Your task to perform on an android device: open sync settings in chrome Image 0: 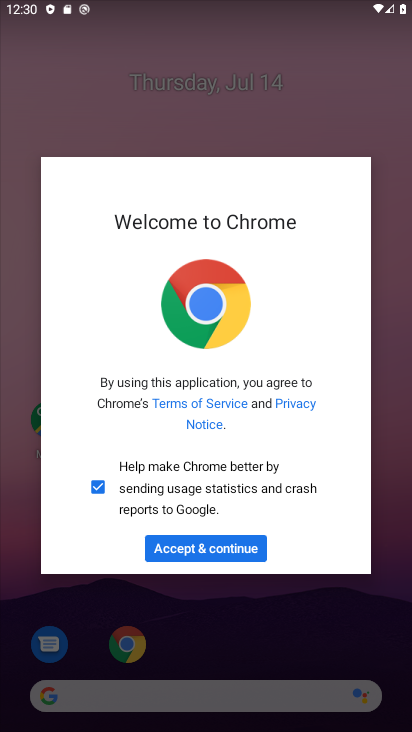
Step 0: click (236, 546)
Your task to perform on an android device: open sync settings in chrome Image 1: 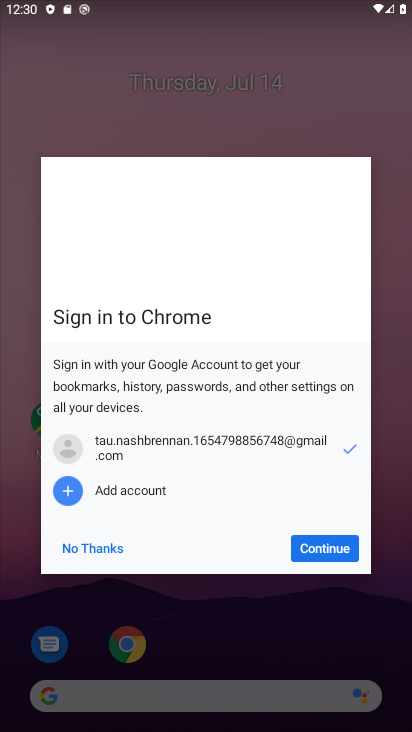
Step 1: click (332, 550)
Your task to perform on an android device: open sync settings in chrome Image 2: 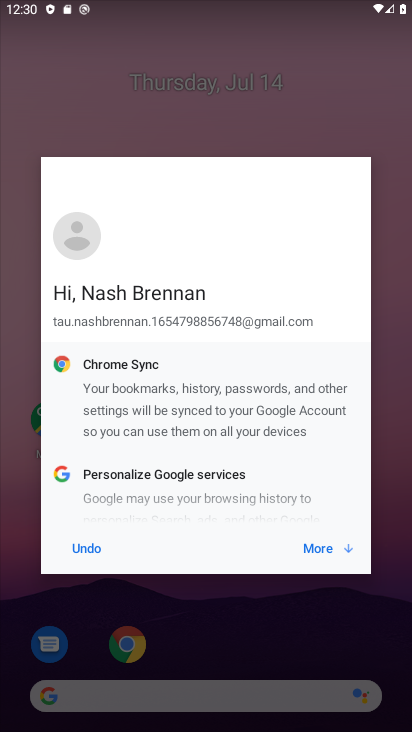
Step 2: click (332, 550)
Your task to perform on an android device: open sync settings in chrome Image 3: 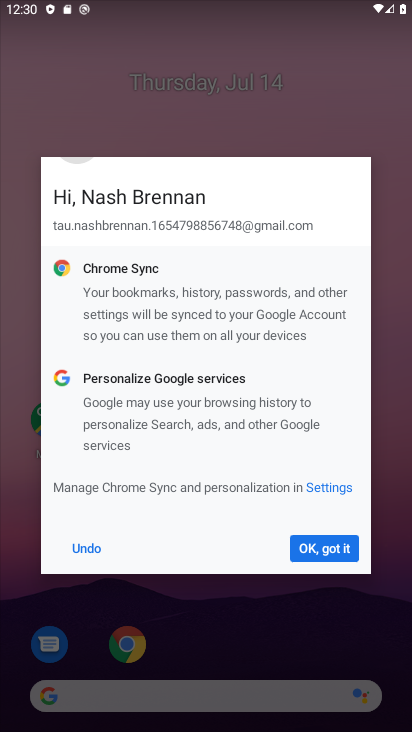
Step 3: click (332, 550)
Your task to perform on an android device: open sync settings in chrome Image 4: 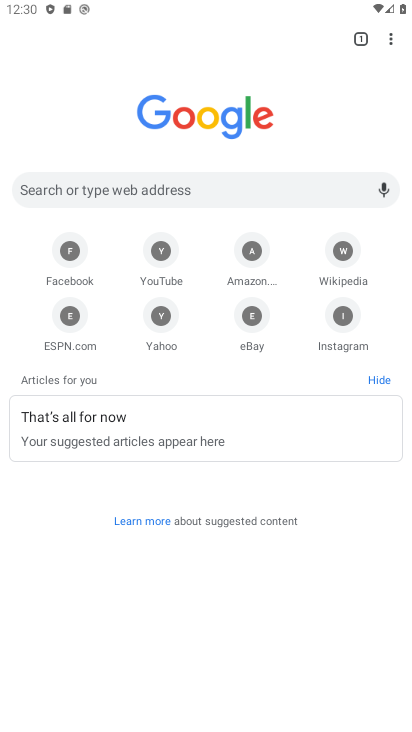
Step 4: drag from (392, 35) to (255, 329)
Your task to perform on an android device: open sync settings in chrome Image 5: 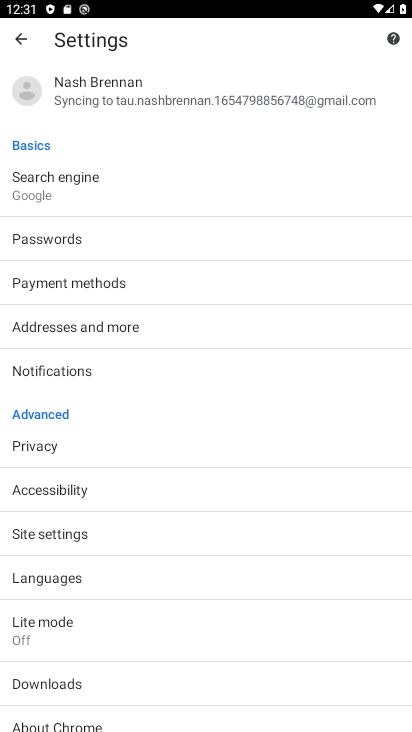
Step 5: click (117, 89)
Your task to perform on an android device: open sync settings in chrome Image 6: 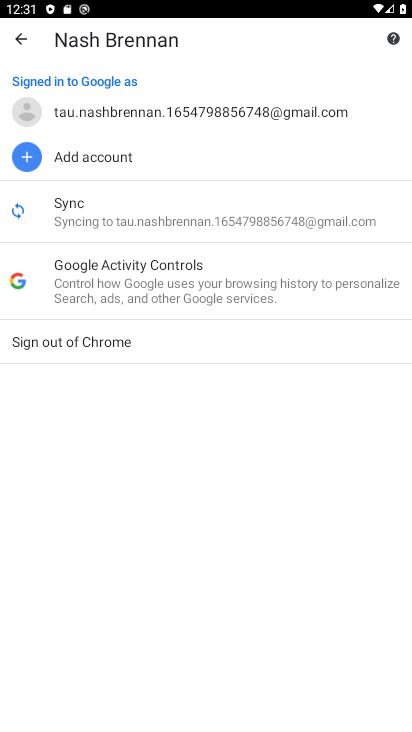
Step 6: click (126, 217)
Your task to perform on an android device: open sync settings in chrome Image 7: 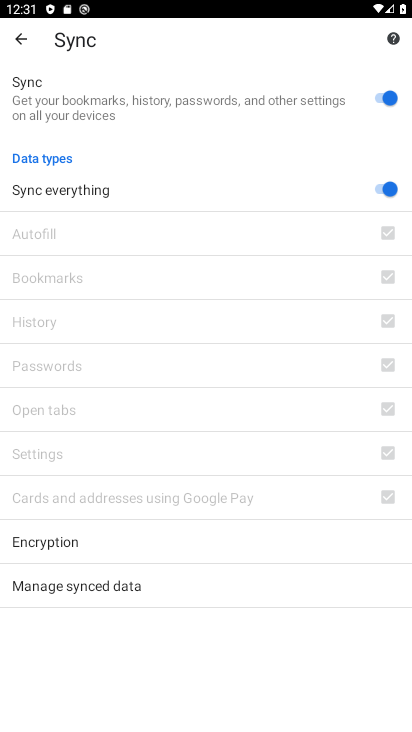
Step 7: task complete